Your task to perform on an android device: clear all cookies in the chrome app Image 0: 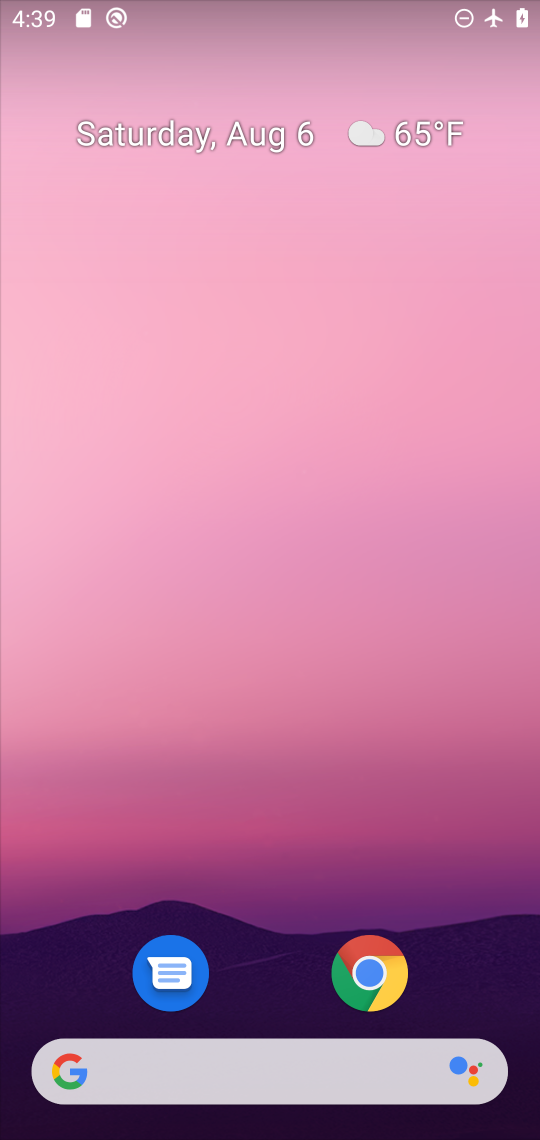
Step 0: drag from (244, 959) to (310, 213)
Your task to perform on an android device: clear all cookies in the chrome app Image 1: 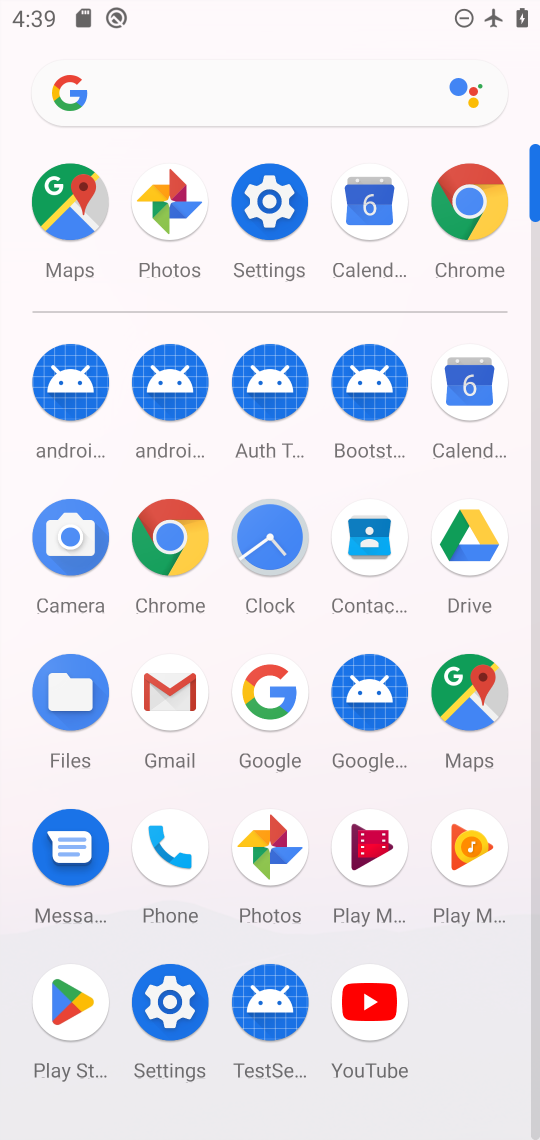
Step 1: click (161, 546)
Your task to perform on an android device: clear all cookies in the chrome app Image 2: 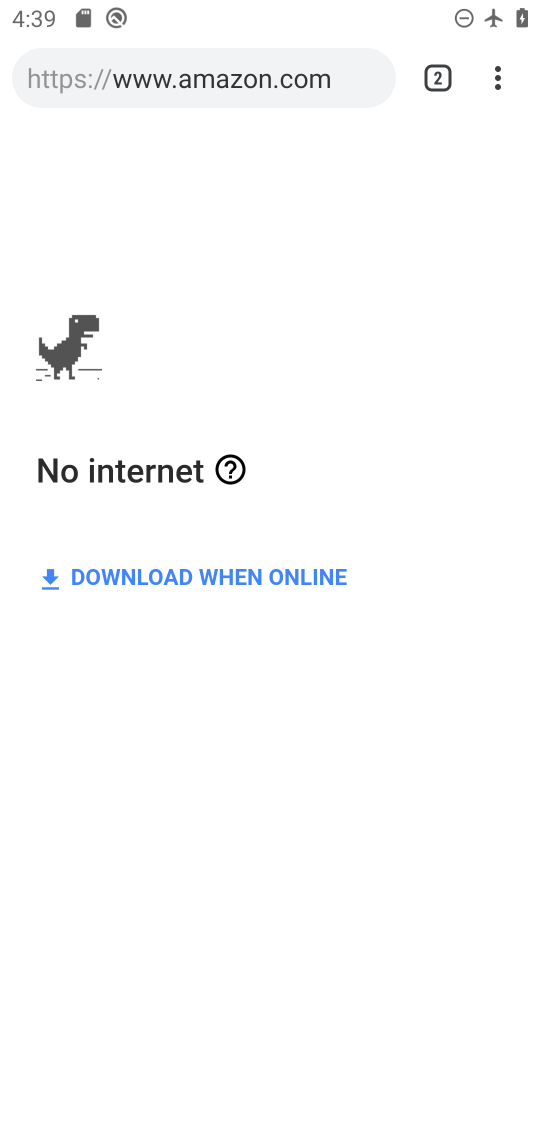
Step 2: task complete